Your task to perform on an android device: What's on my calendar today? Image 0: 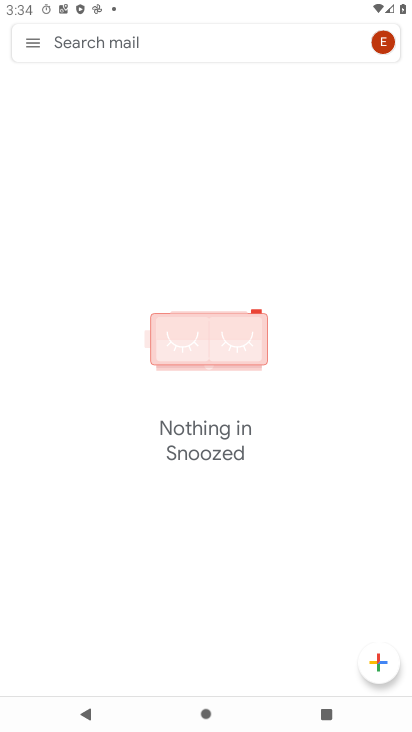
Step 0: press back button
Your task to perform on an android device: What's on my calendar today? Image 1: 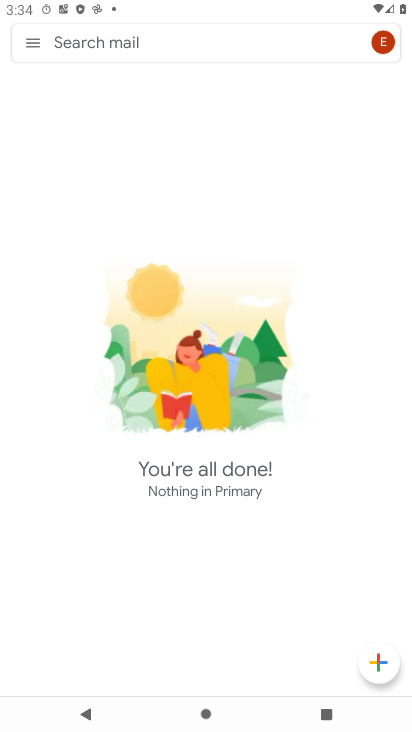
Step 1: press back button
Your task to perform on an android device: What's on my calendar today? Image 2: 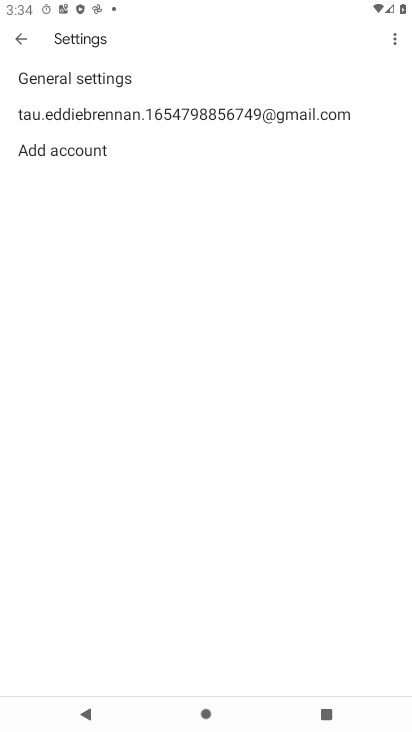
Step 2: press back button
Your task to perform on an android device: What's on my calendar today? Image 3: 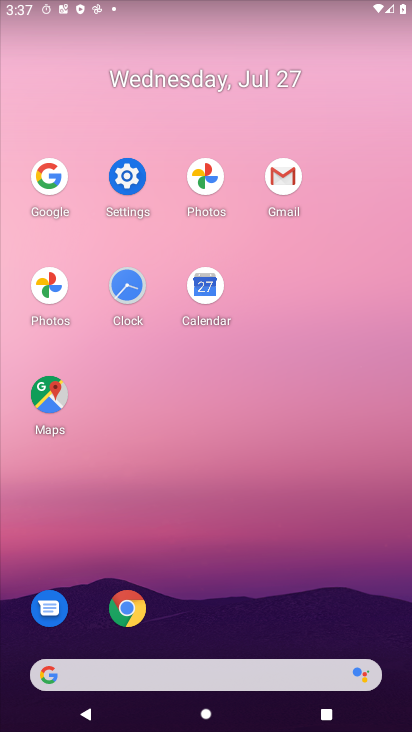
Step 3: click (196, 290)
Your task to perform on an android device: What's on my calendar today? Image 4: 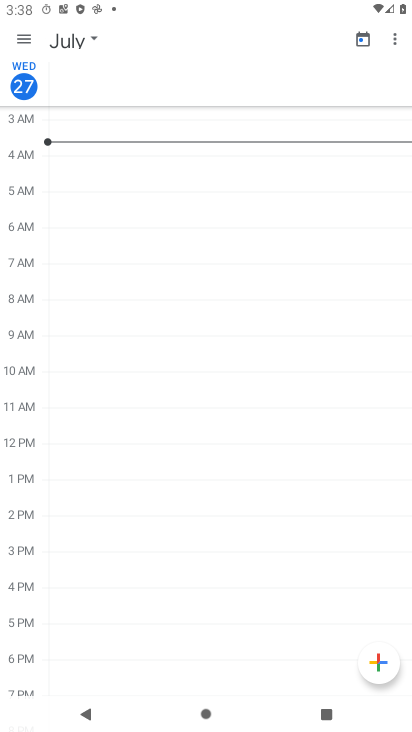
Step 4: task complete